Your task to perform on an android device: create a new album in the google photos Image 0: 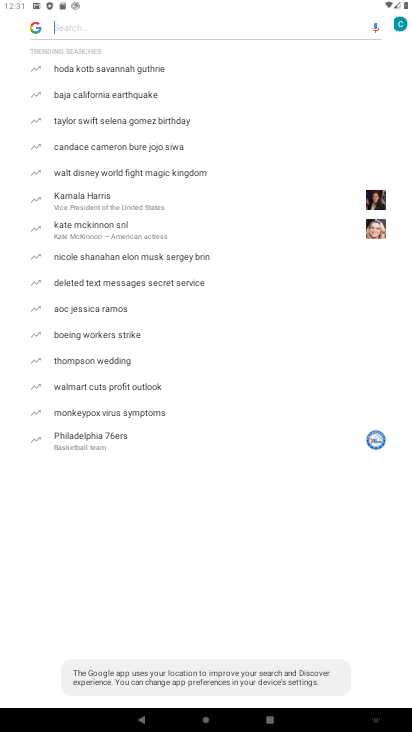
Step 0: press home button
Your task to perform on an android device: create a new album in the google photos Image 1: 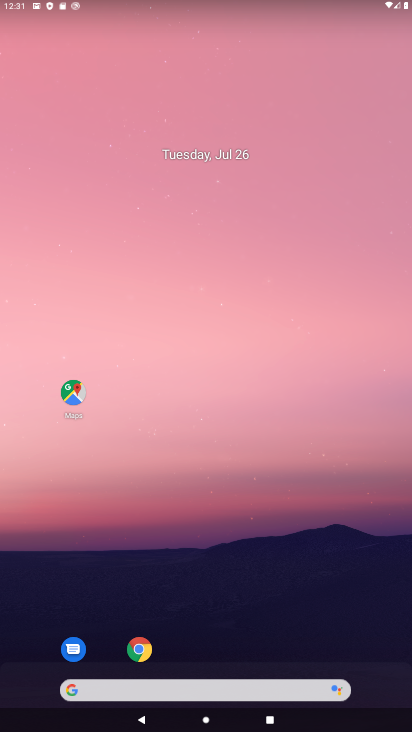
Step 1: drag from (328, 592) to (244, 8)
Your task to perform on an android device: create a new album in the google photos Image 2: 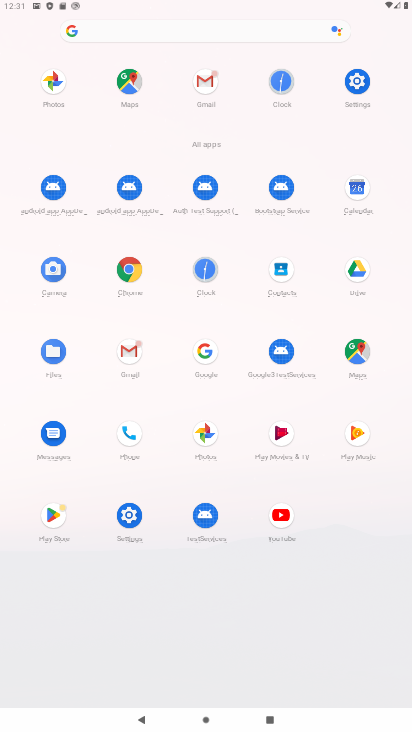
Step 2: click (207, 436)
Your task to perform on an android device: create a new album in the google photos Image 3: 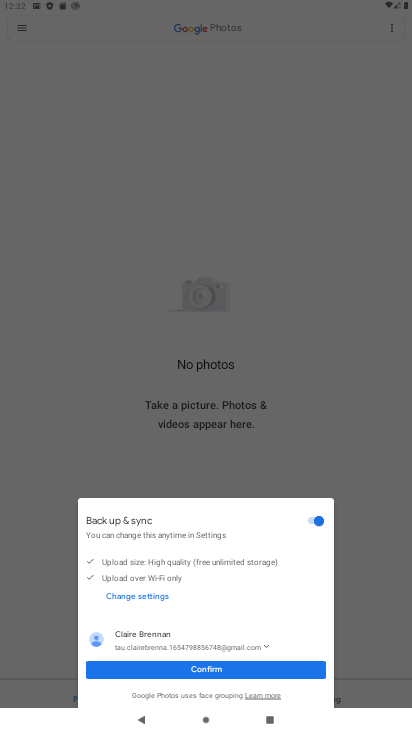
Step 3: click (184, 669)
Your task to perform on an android device: create a new album in the google photos Image 4: 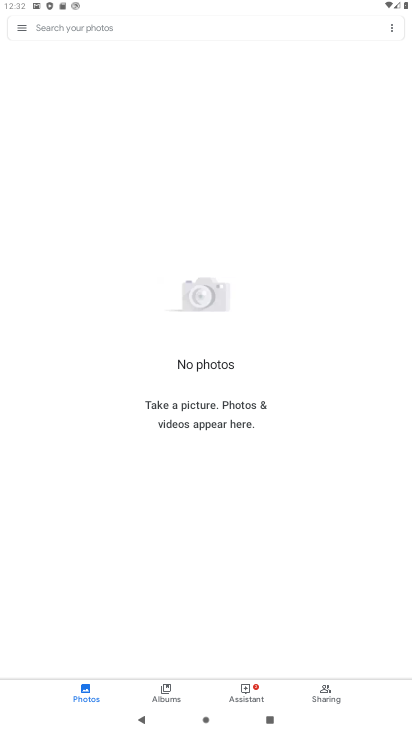
Step 4: click (173, 685)
Your task to perform on an android device: create a new album in the google photos Image 5: 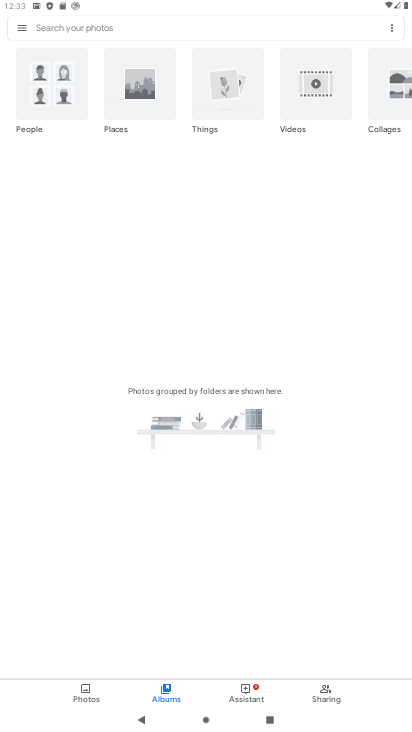
Step 5: task complete